Your task to perform on an android device: change notification settings in the gmail app Image 0: 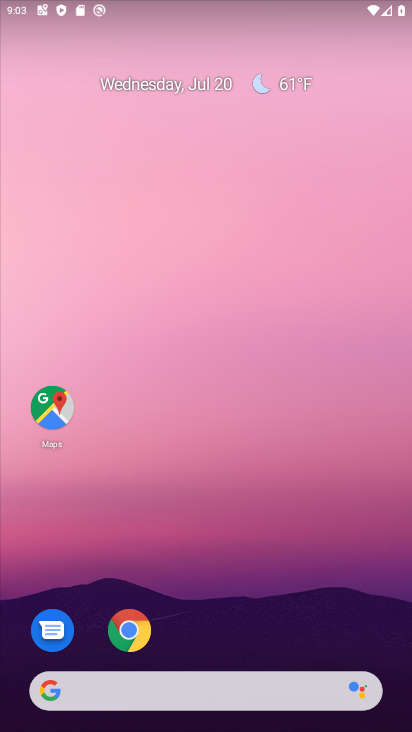
Step 0: drag from (250, 637) to (250, 262)
Your task to perform on an android device: change notification settings in the gmail app Image 1: 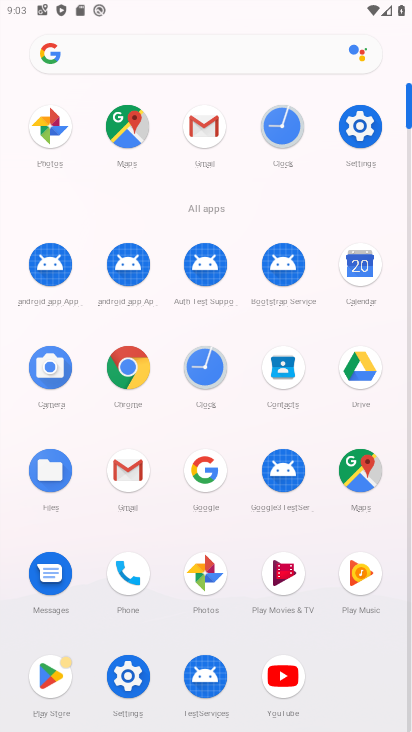
Step 1: click (201, 133)
Your task to perform on an android device: change notification settings in the gmail app Image 2: 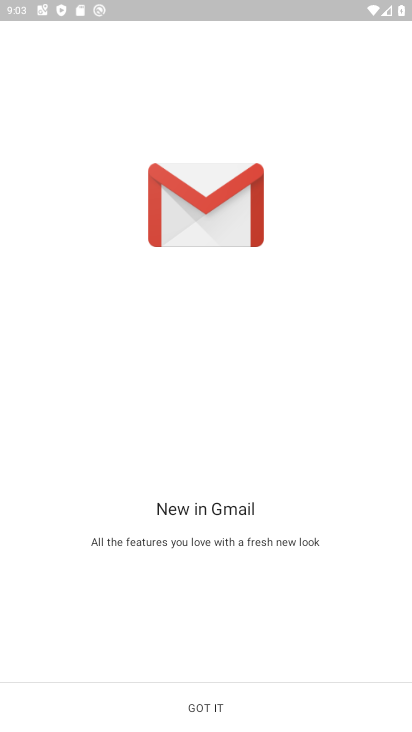
Step 2: click (262, 697)
Your task to perform on an android device: change notification settings in the gmail app Image 3: 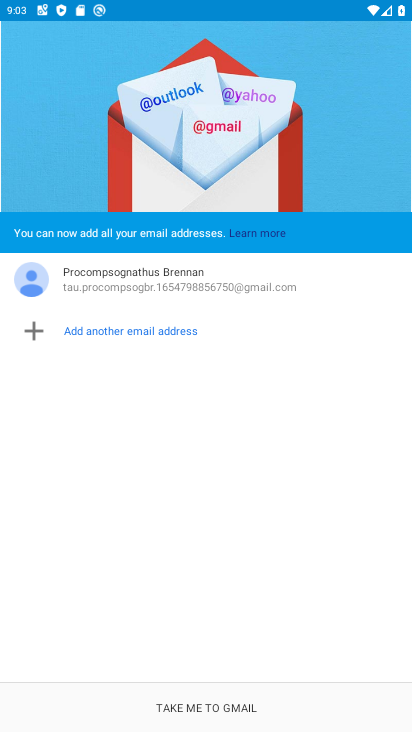
Step 3: click (262, 697)
Your task to perform on an android device: change notification settings in the gmail app Image 4: 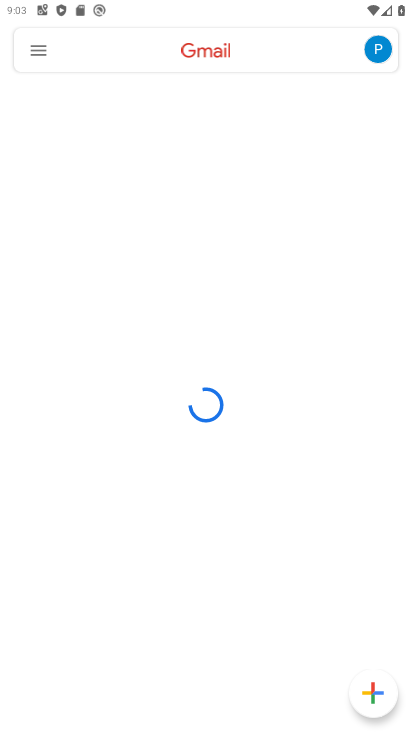
Step 4: click (27, 57)
Your task to perform on an android device: change notification settings in the gmail app Image 5: 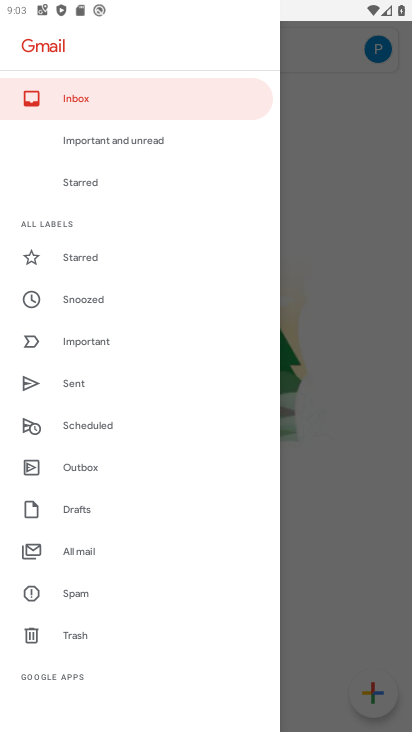
Step 5: drag from (89, 651) to (88, 127)
Your task to perform on an android device: change notification settings in the gmail app Image 6: 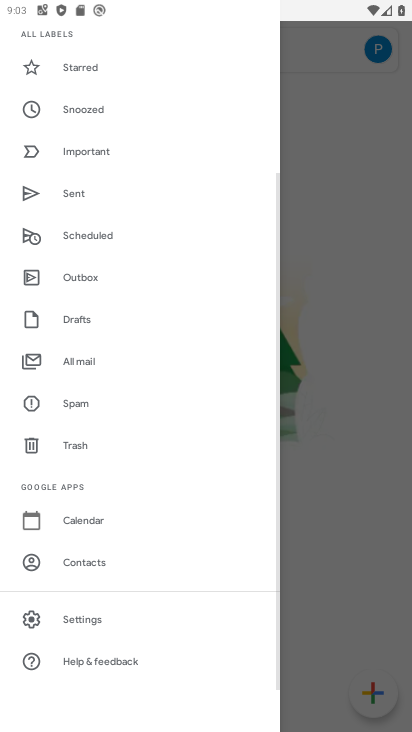
Step 6: click (102, 617)
Your task to perform on an android device: change notification settings in the gmail app Image 7: 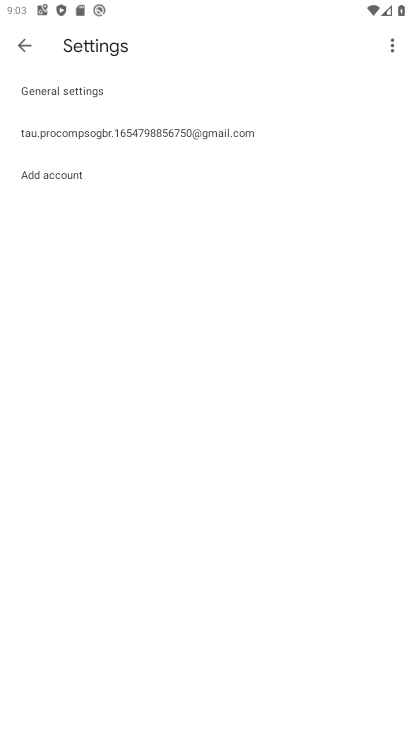
Step 7: click (61, 131)
Your task to perform on an android device: change notification settings in the gmail app Image 8: 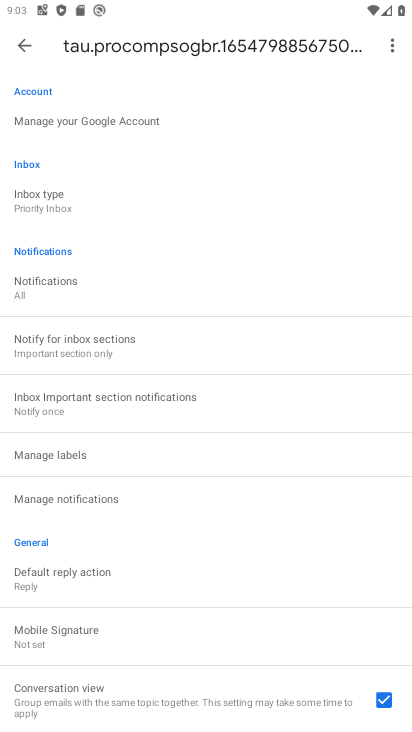
Step 8: click (61, 496)
Your task to perform on an android device: change notification settings in the gmail app Image 9: 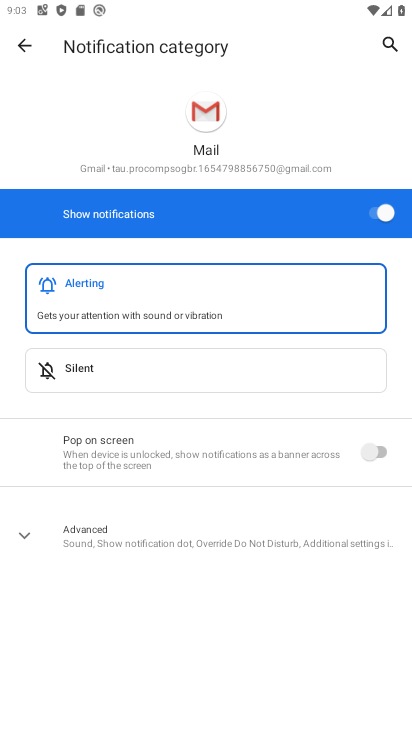
Step 9: click (372, 218)
Your task to perform on an android device: change notification settings in the gmail app Image 10: 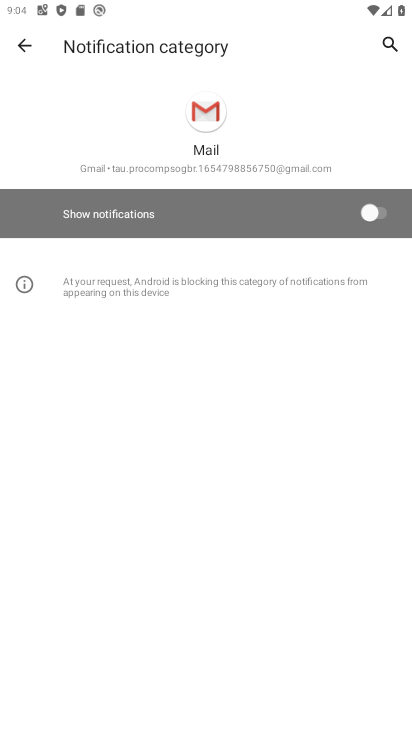
Step 10: task complete